Your task to perform on an android device: Go to sound settings Image 0: 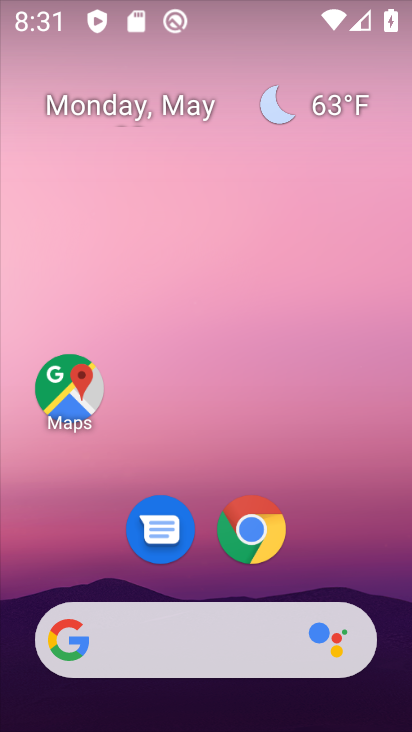
Step 0: drag from (162, 284) to (229, 93)
Your task to perform on an android device: Go to sound settings Image 1: 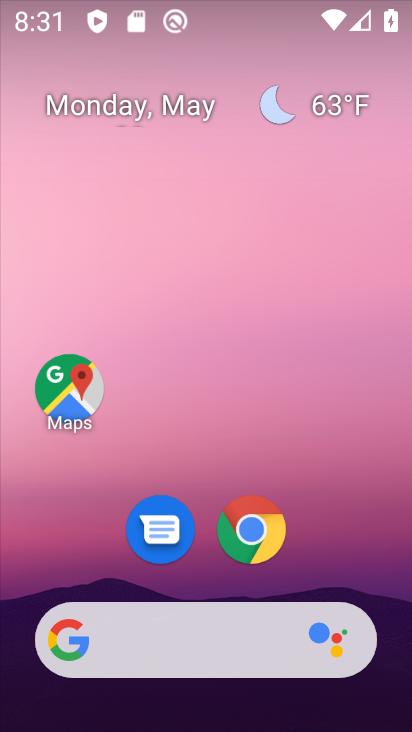
Step 1: drag from (78, 582) to (204, 131)
Your task to perform on an android device: Go to sound settings Image 2: 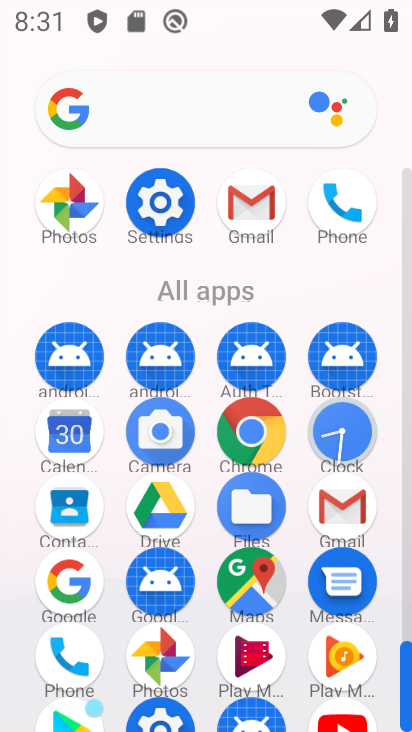
Step 2: drag from (190, 598) to (253, 300)
Your task to perform on an android device: Go to sound settings Image 3: 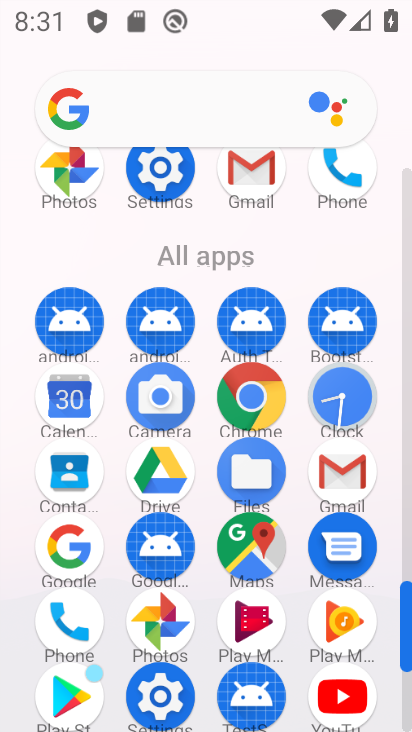
Step 3: click (139, 692)
Your task to perform on an android device: Go to sound settings Image 4: 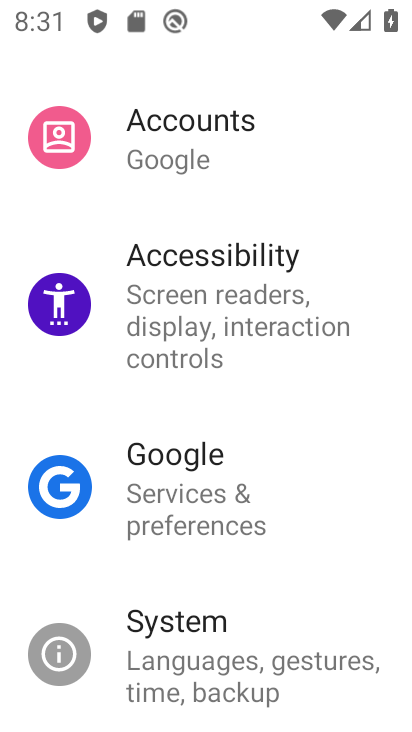
Step 4: drag from (330, 198) to (340, 689)
Your task to perform on an android device: Go to sound settings Image 5: 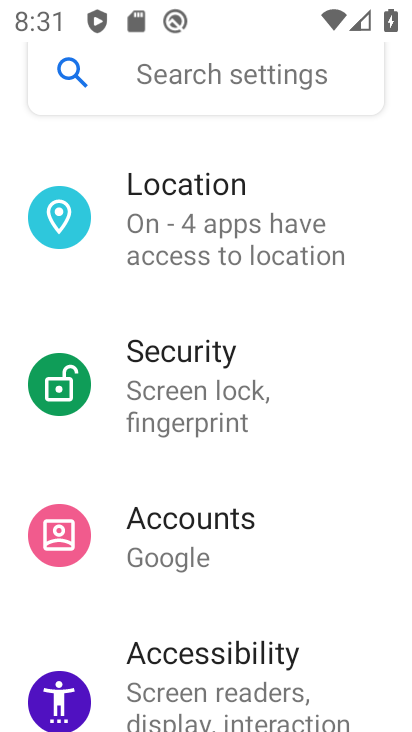
Step 5: drag from (369, 271) to (352, 668)
Your task to perform on an android device: Go to sound settings Image 6: 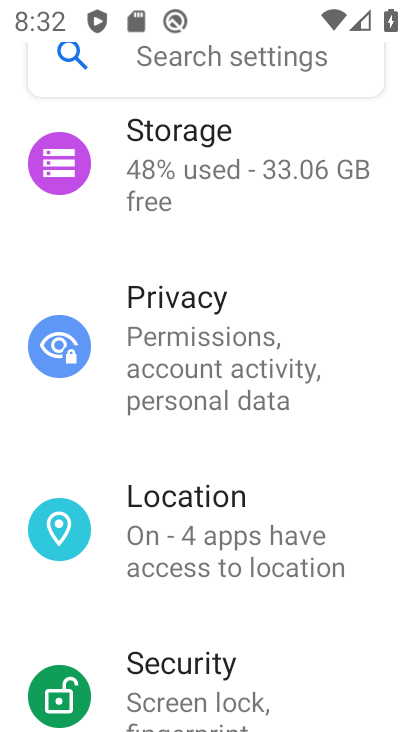
Step 6: drag from (339, 308) to (322, 656)
Your task to perform on an android device: Go to sound settings Image 7: 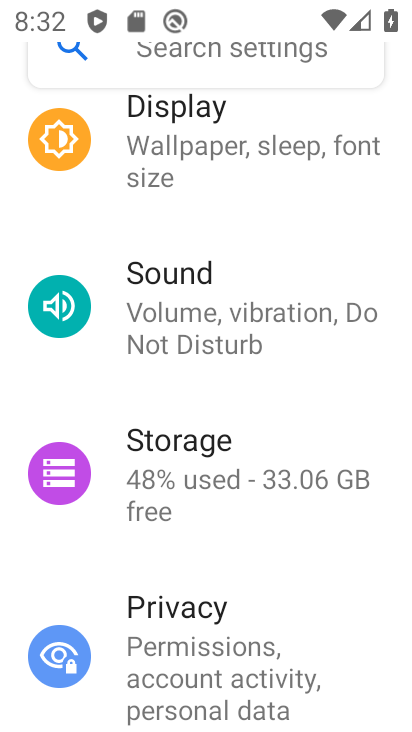
Step 7: click (239, 382)
Your task to perform on an android device: Go to sound settings Image 8: 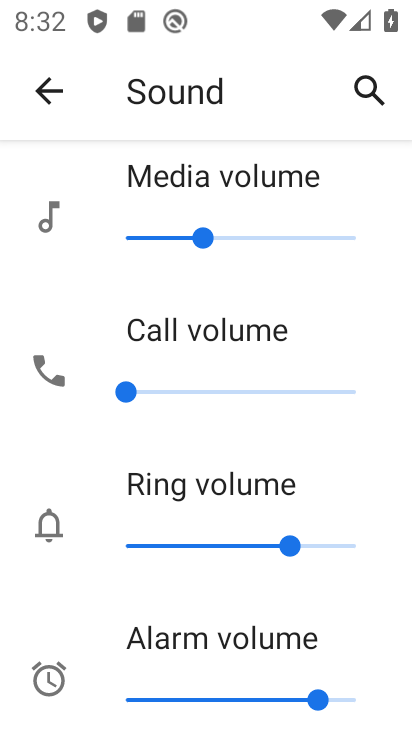
Step 8: task complete